Your task to perform on an android device: turn vacation reply on in the gmail app Image 0: 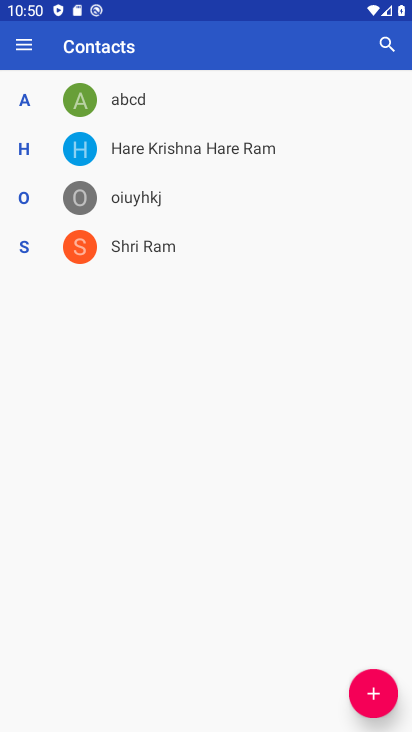
Step 0: press home button
Your task to perform on an android device: turn vacation reply on in the gmail app Image 1: 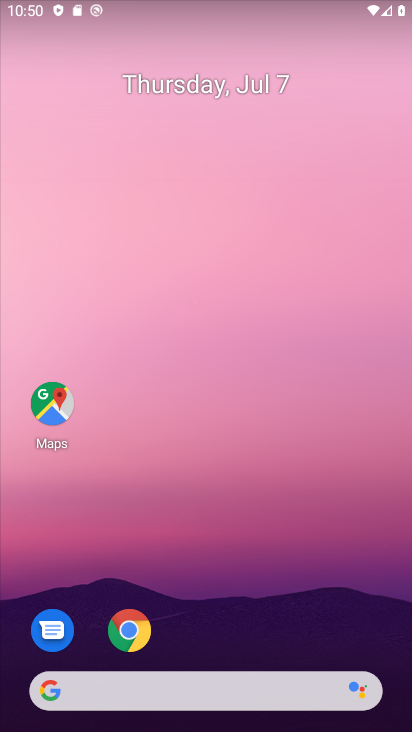
Step 1: drag from (265, 587) to (177, 117)
Your task to perform on an android device: turn vacation reply on in the gmail app Image 2: 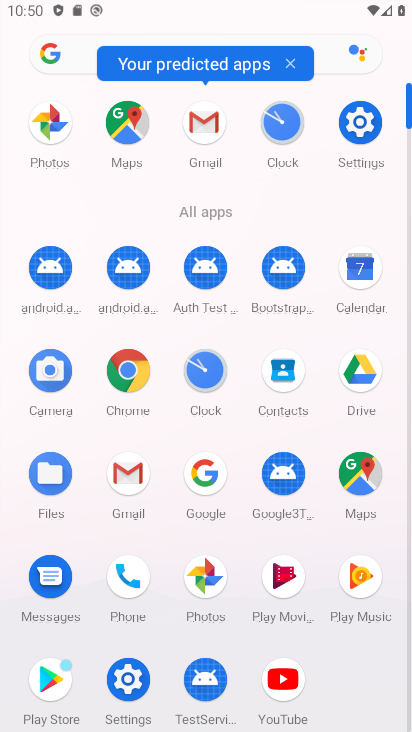
Step 2: click (216, 145)
Your task to perform on an android device: turn vacation reply on in the gmail app Image 3: 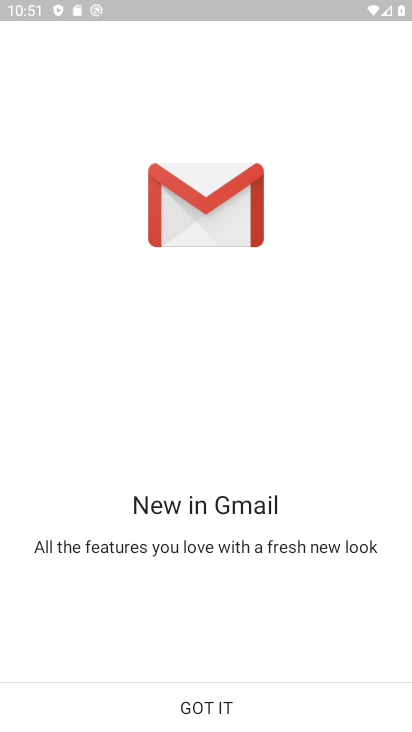
Step 3: click (176, 704)
Your task to perform on an android device: turn vacation reply on in the gmail app Image 4: 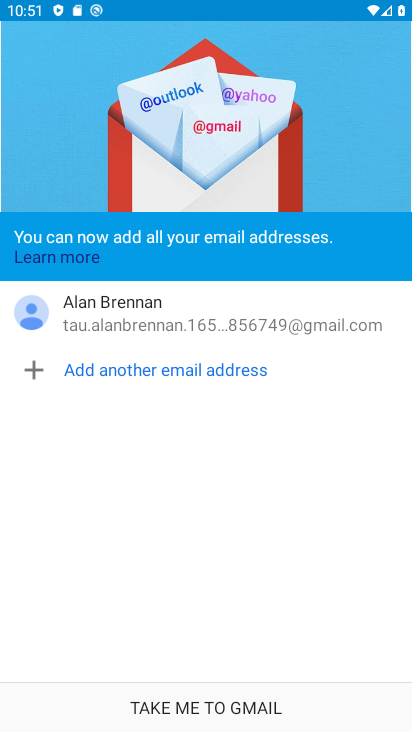
Step 4: click (176, 704)
Your task to perform on an android device: turn vacation reply on in the gmail app Image 5: 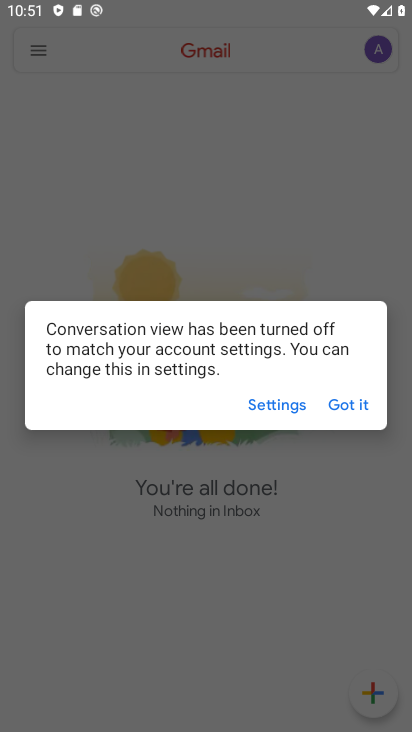
Step 5: click (350, 408)
Your task to perform on an android device: turn vacation reply on in the gmail app Image 6: 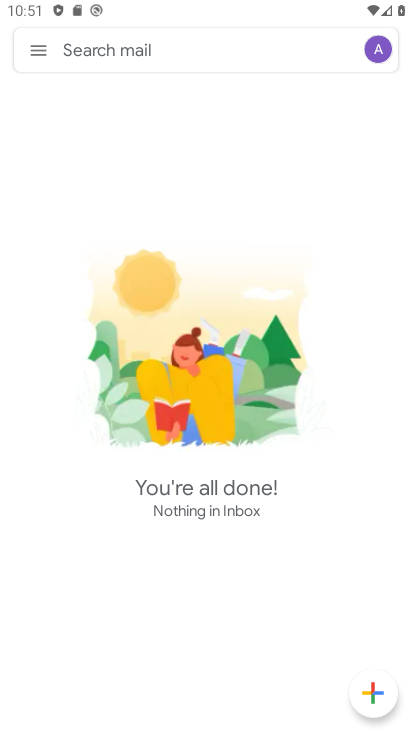
Step 6: click (27, 44)
Your task to perform on an android device: turn vacation reply on in the gmail app Image 7: 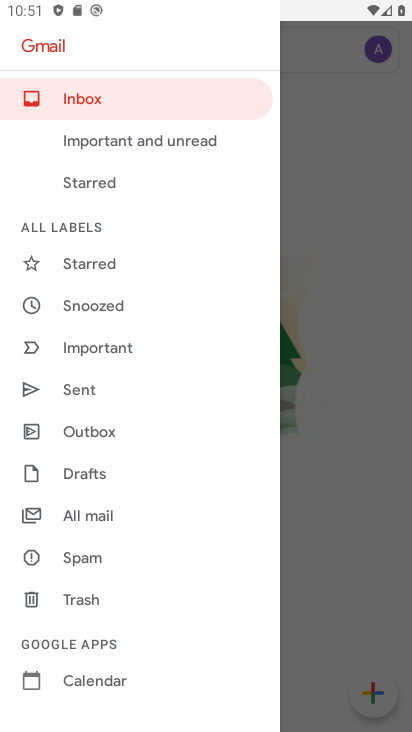
Step 7: drag from (103, 575) to (73, 171)
Your task to perform on an android device: turn vacation reply on in the gmail app Image 8: 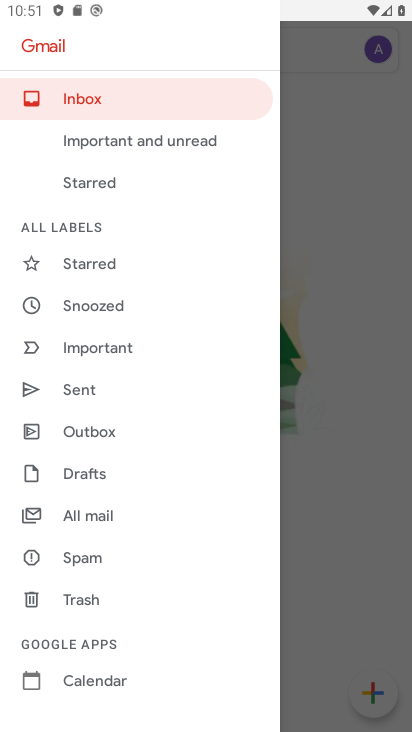
Step 8: drag from (106, 641) to (105, 314)
Your task to perform on an android device: turn vacation reply on in the gmail app Image 9: 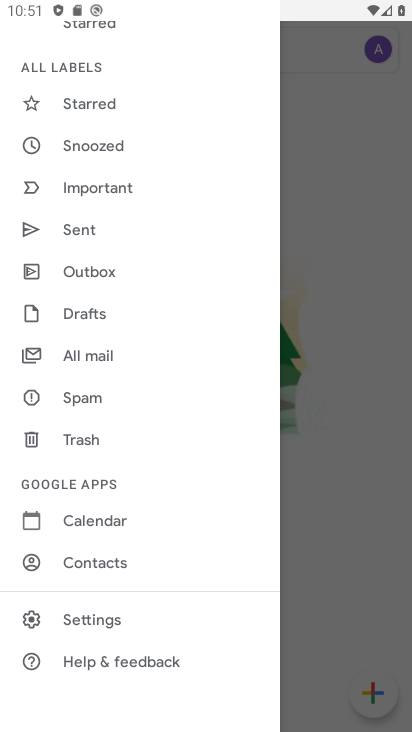
Step 9: click (106, 610)
Your task to perform on an android device: turn vacation reply on in the gmail app Image 10: 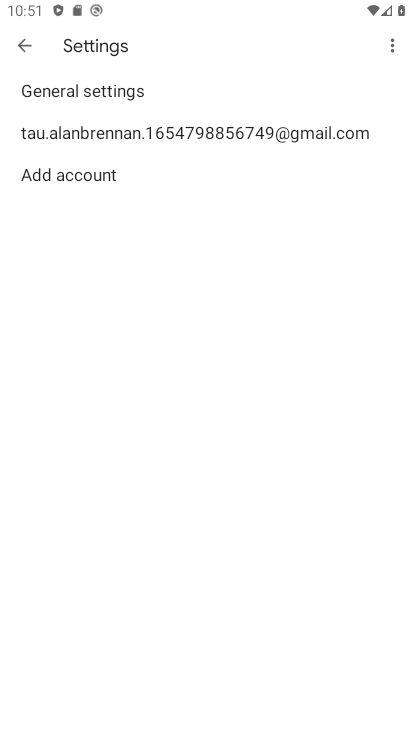
Step 10: click (115, 135)
Your task to perform on an android device: turn vacation reply on in the gmail app Image 11: 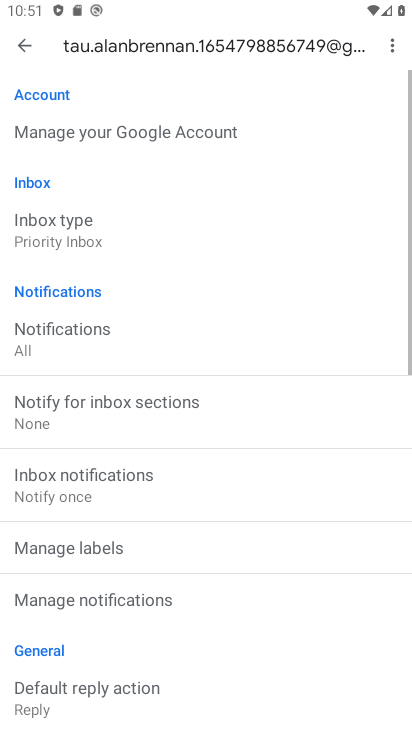
Step 11: drag from (163, 637) to (134, 189)
Your task to perform on an android device: turn vacation reply on in the gmail app Image 12: 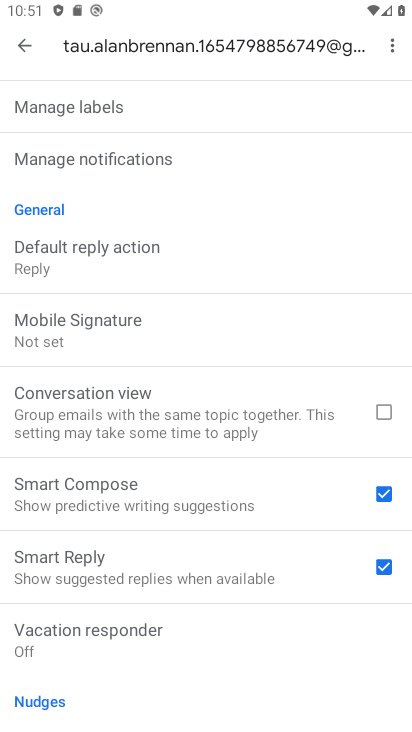
Step 12: click (154, 620)
Your task to perform on an android device: turn vacation reply on in the gmail app Image 13: 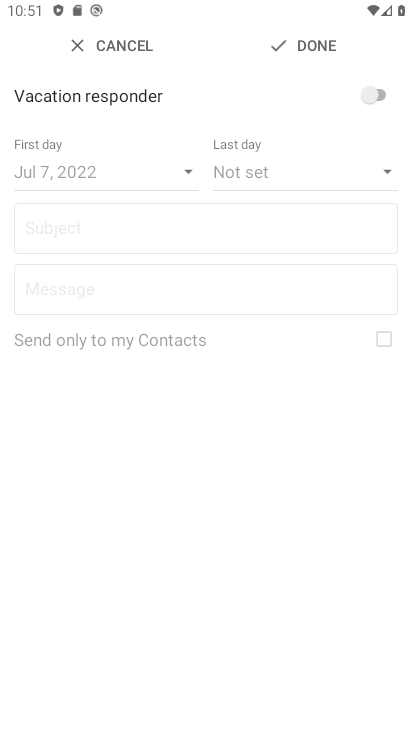
Step 13: click (348, 91)
Your task to perform on an android device: turn vacation reply on in the gmail app Image 14: 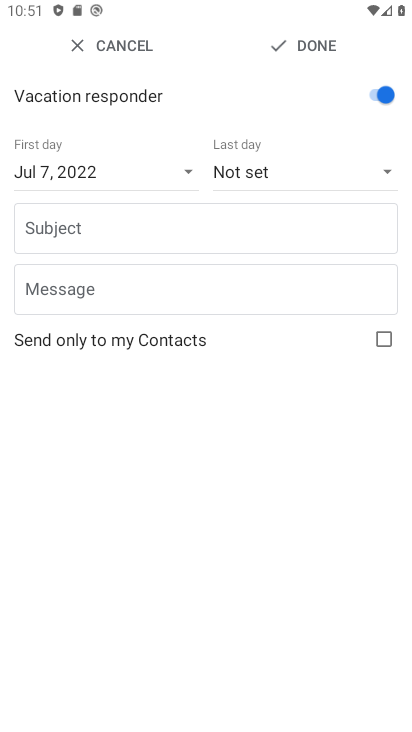
Step 14: click (330, 55)
Your task to perform on an android device: turn vacation reply on in the gmail app Image 15: 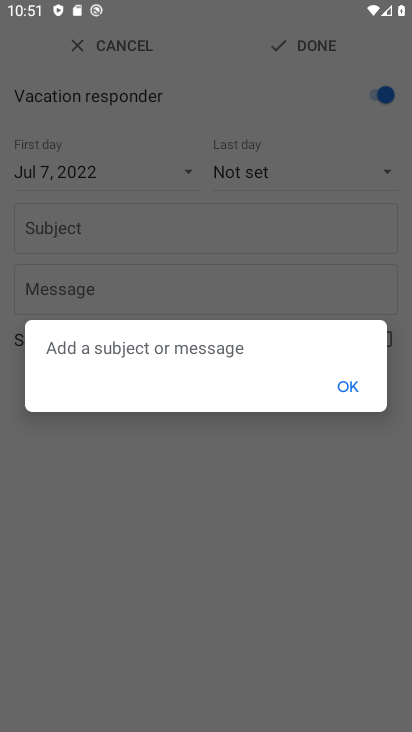
Step 15: click (349, 391)
Your task to perform on an android device: turn vacation reply on in the gmail app Image 16: 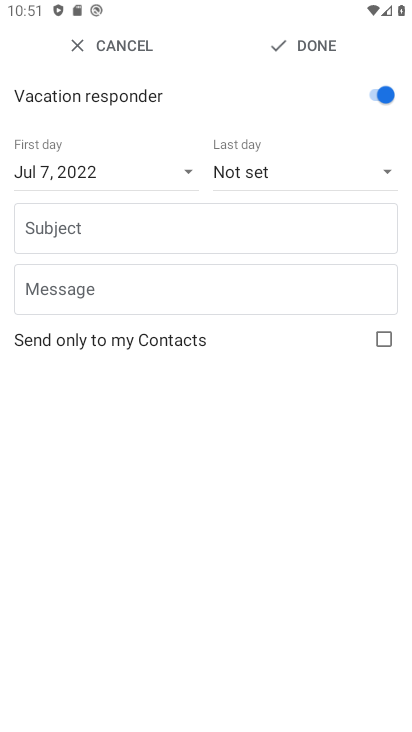
Step 16: task complete